Your task to perform on an android device: Go to eBay Image 0: 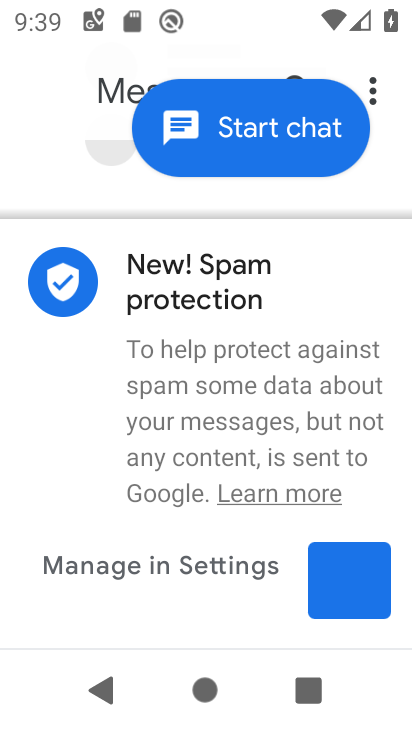
Step 0: press home button
Your task to perform on an android device: Go to eBay Image 1: 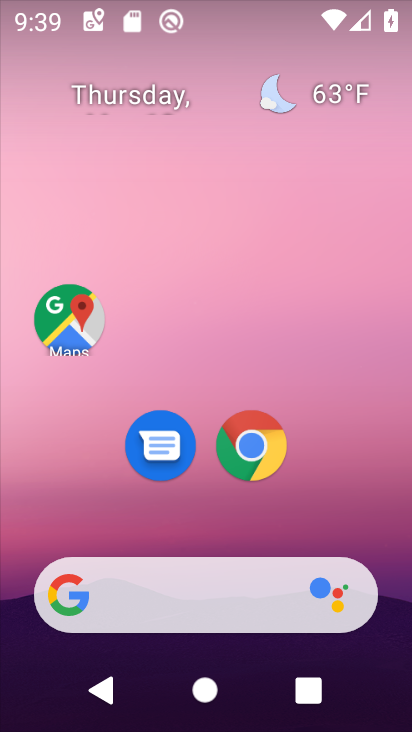
Step 1: drag from (315, 523) to (354, 180)
Your task to perform on an android device: Go to eBay Image 2: 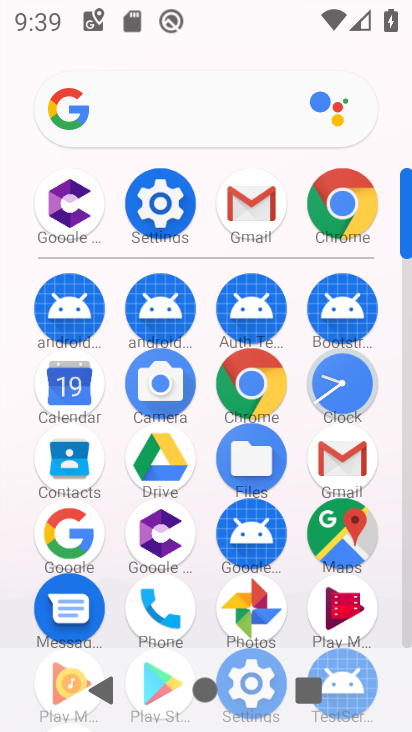
Step 2: click (280, 390)
Your task to perform on an android device: Go to eBay Image 3: 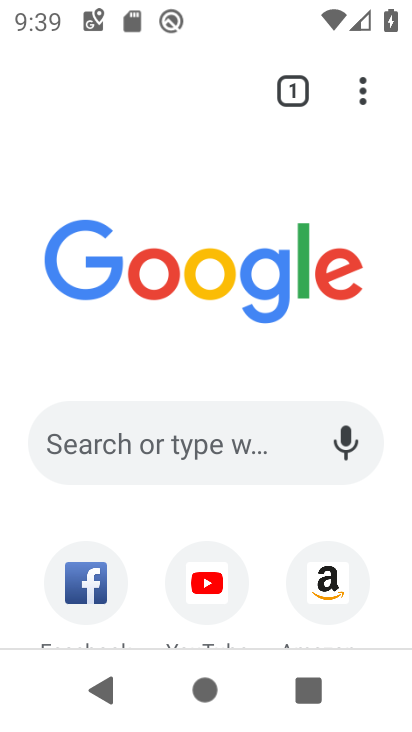
Step 3: drag from (216, 532) to (189, 225)
Your task to perform on an android device: Go to eBay Image 4: 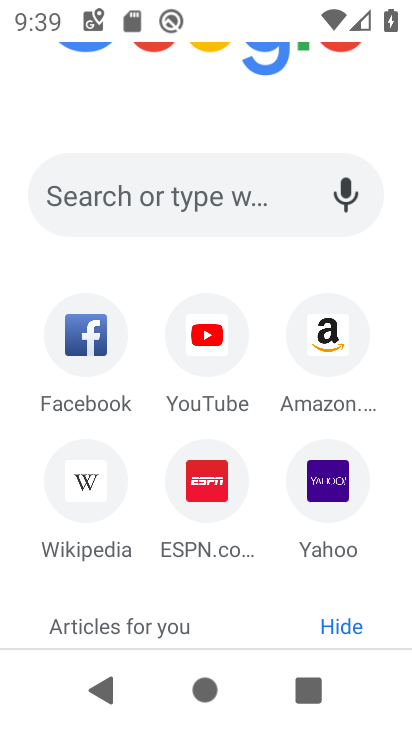
Step 4: click (180, 221)
Your task to perform on an android device: Go to eBay Image 5: 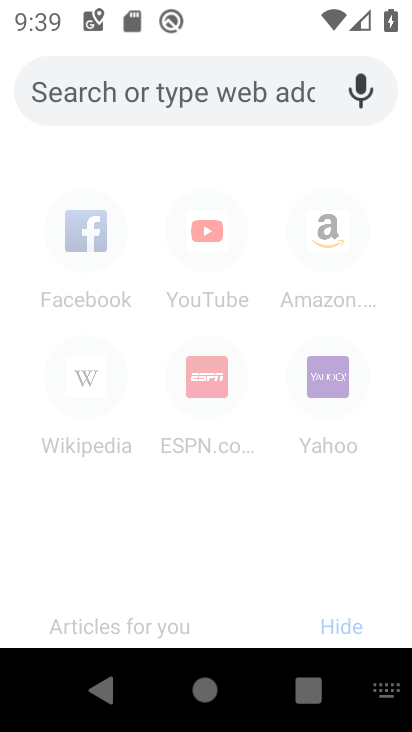
Step 5: type "eBay"
Your task to perform on an android device: Go to eBay Image 6: 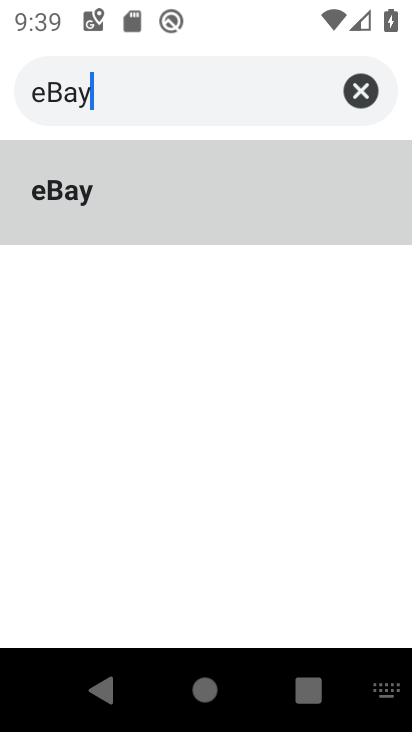
Step 6: type ""
Your task to perform on an android device: Go to eBay Image 7: 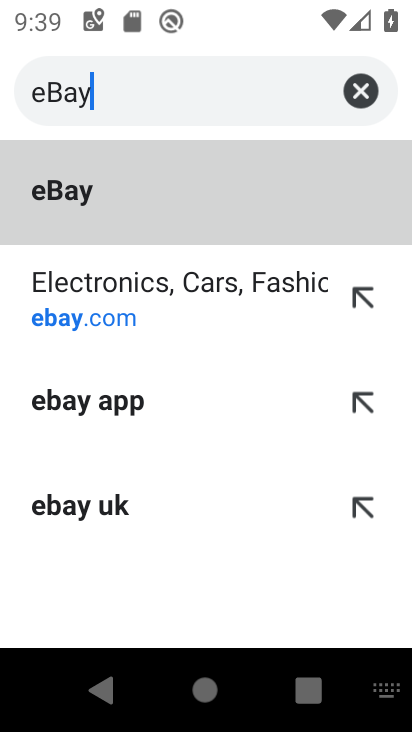
Step 7: click (140, 195)
Your task to perform on an android device: Go to eBay Image 8: 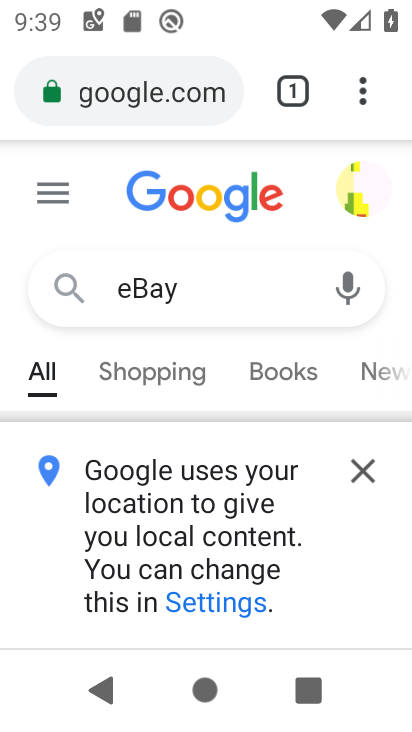
Step 8: click (369, 455)
Your task to perform on an android device: Go to eBay Image 9: 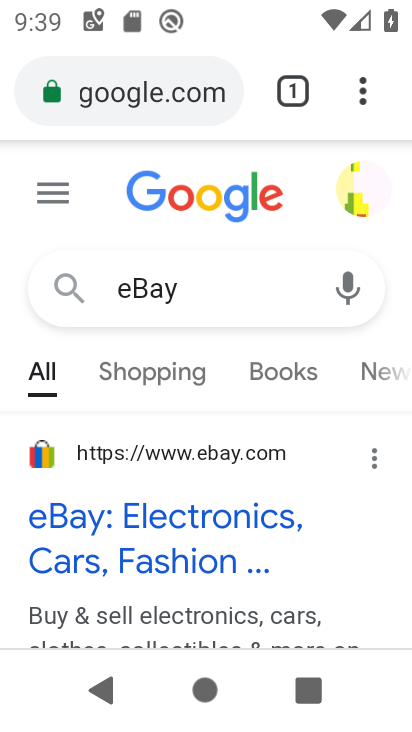
Step 9: click (204, 538)
Your task to perform on an android device: Go to eBay Image 10: 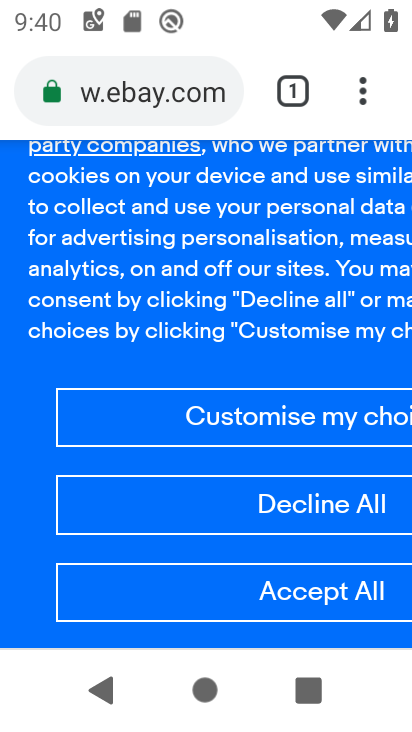
Step 10: task complete